Your task to perform on an android device: Open network settings Image 0: 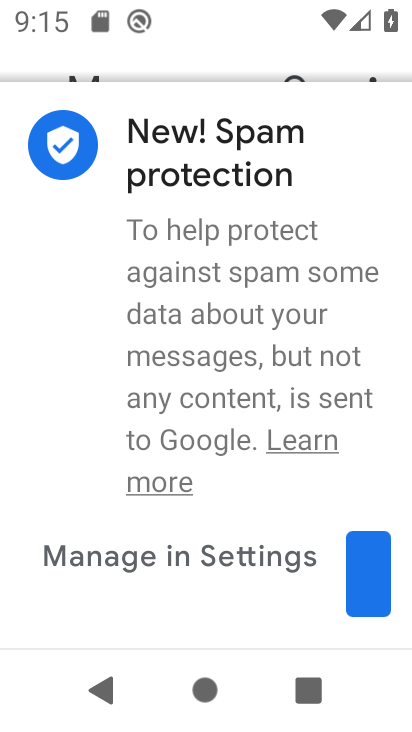
Step 0: press home button
Your task to perform on an android device: Open network settings Image 1: 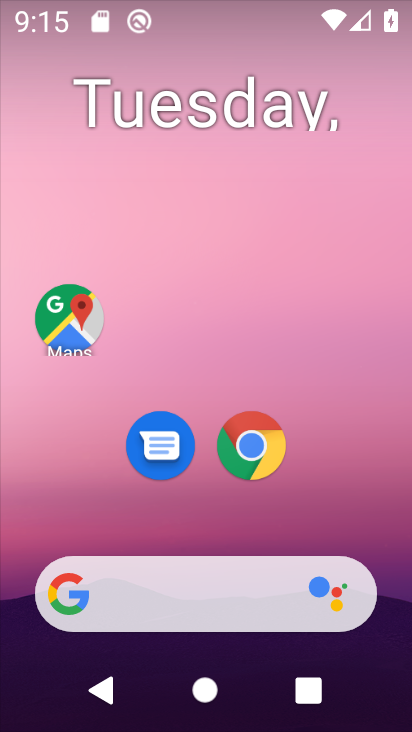
Step 1: drag from (368, 147) to (366, 102)
Your task to perform on an android device: Open network settings Image 2: 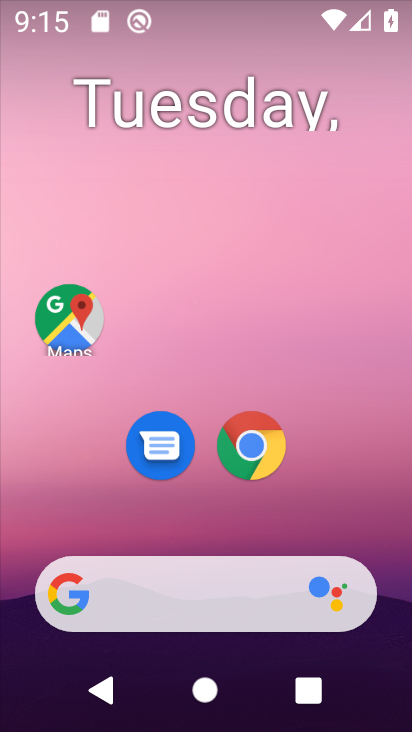
Step 2: drag from (397, 586) to (358, 128)
Your task to perform on an android device: Open network settings Image 3: 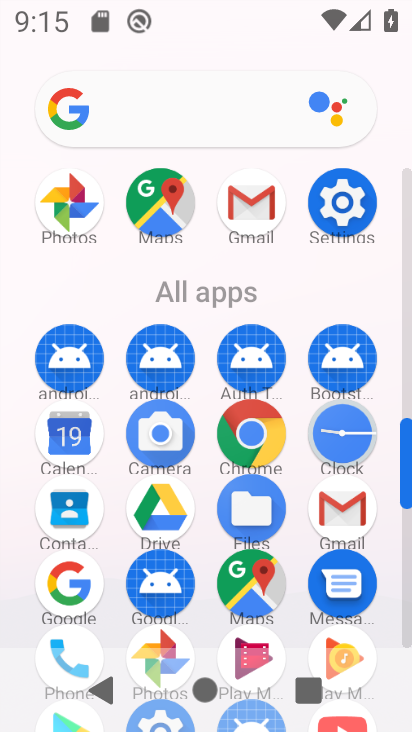
Step 3: click (343, 201)
Your task to perform on an android device: Open network settings Image 4: 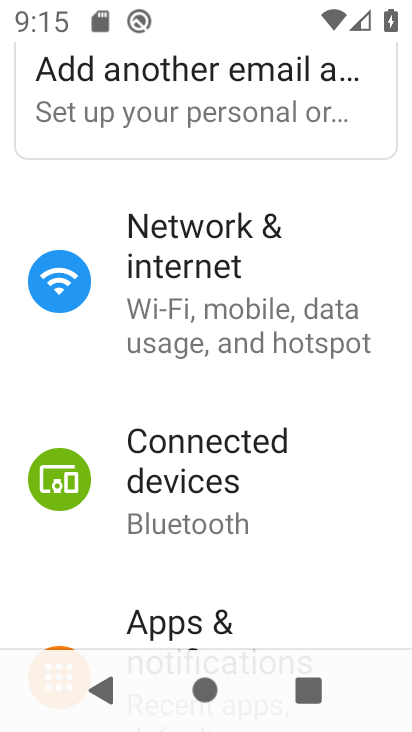
Step 4: click (152, 266)
Your task to perform on an android device: Open network settings Image 5: 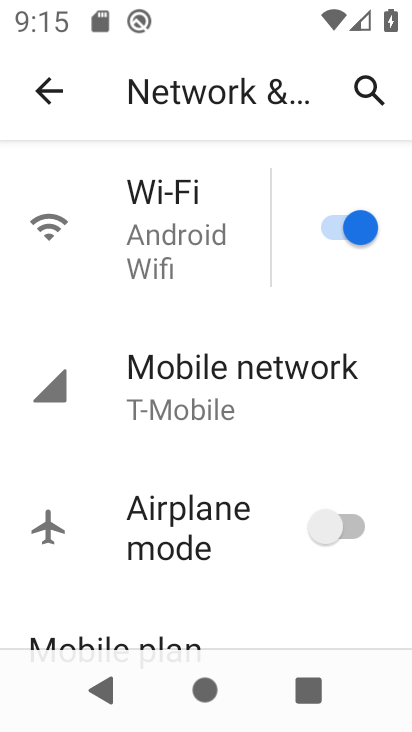
Step 5: click (168, 376)
Your task to perform on an android device: Open network settings Image 6: 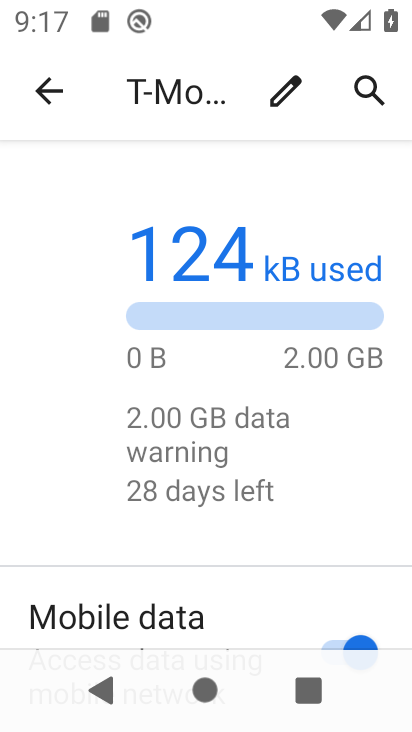
Step 6: task complete